Your task to perform on an android device: turn off translation in the chrome app Image 0: 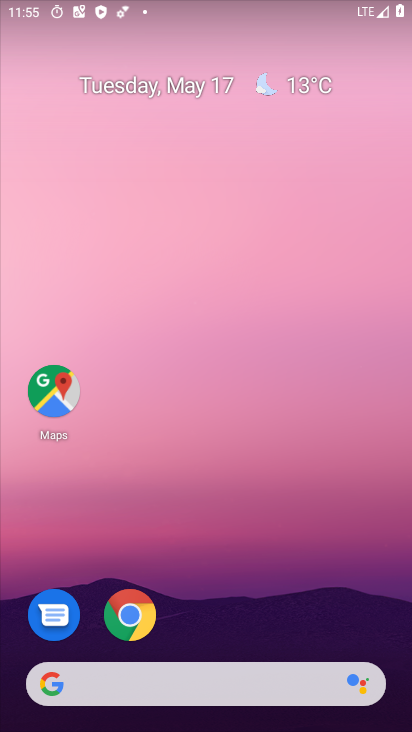
Step 0: press home button
Your task to perform on an android device: turn off translation in the chrome app Image 1: 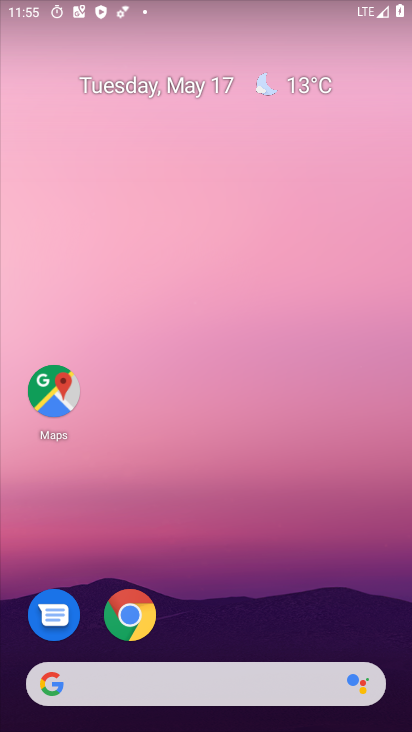
Step 1: click (134, 627)
Your task to perform on an android device: turn off translation in the chrome app Image 2: 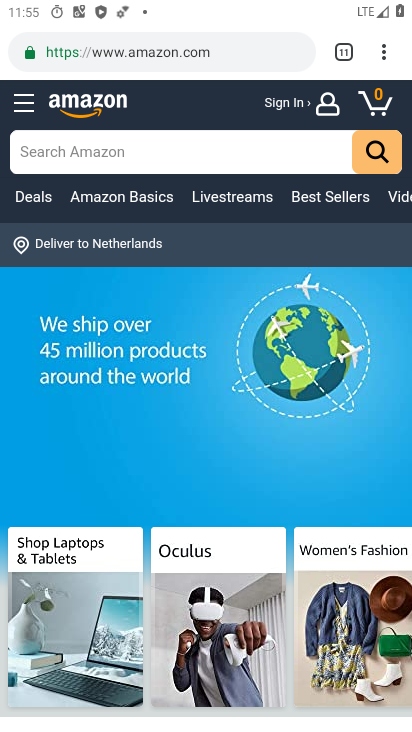
Step 2: drag from (384, 52) to (239, 636)
Your task to perform on an android device: turn off translation in the chrome app Image 3: 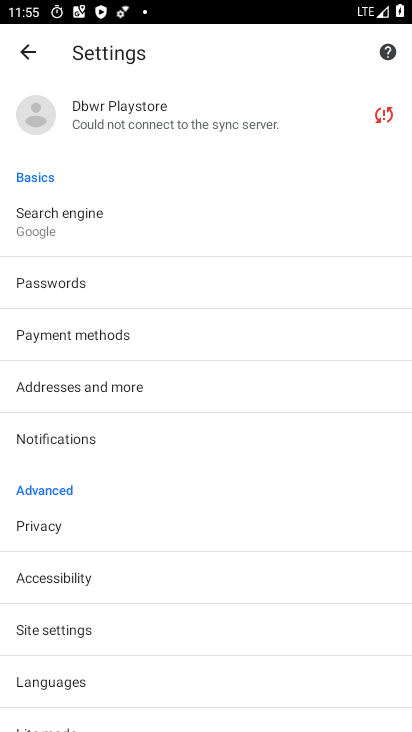
Step 3: click (93, 689)
Your task to perform on an android device: turn off translation in the chrome app Image 4: 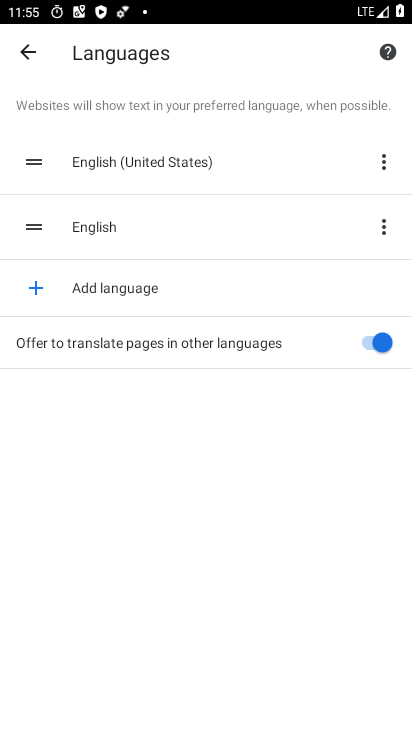
Step 4: click (368, 342)
Your task to perform on an android device: turn off translation in the chrome app Image 5: 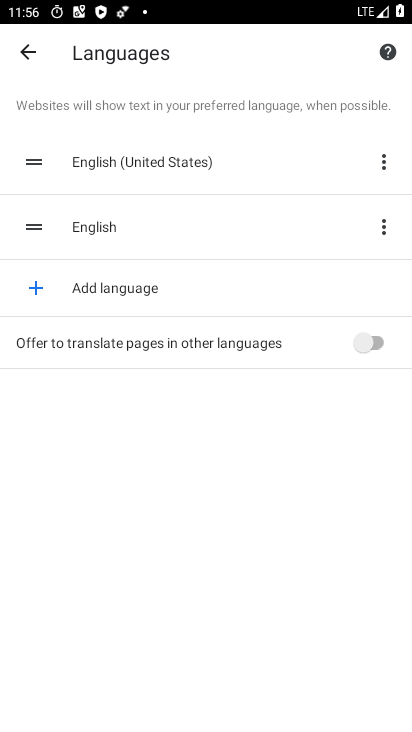
Step 5: task complete